Your task to perform on an android device: Go to battery settings Image 0: 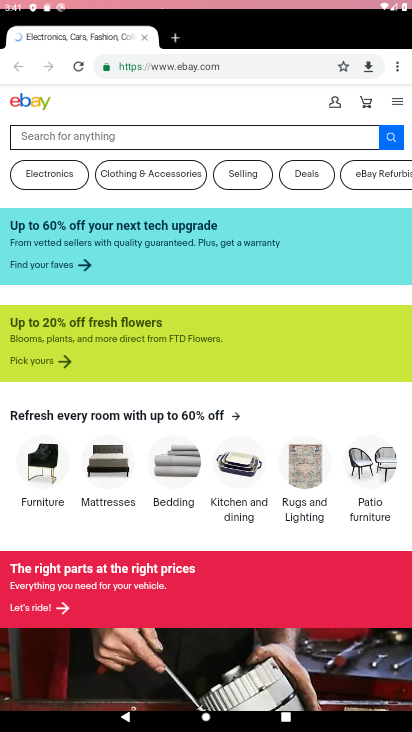
Step 0: press home button
Your task to perform on an android device: Go to battery settings Image 1: 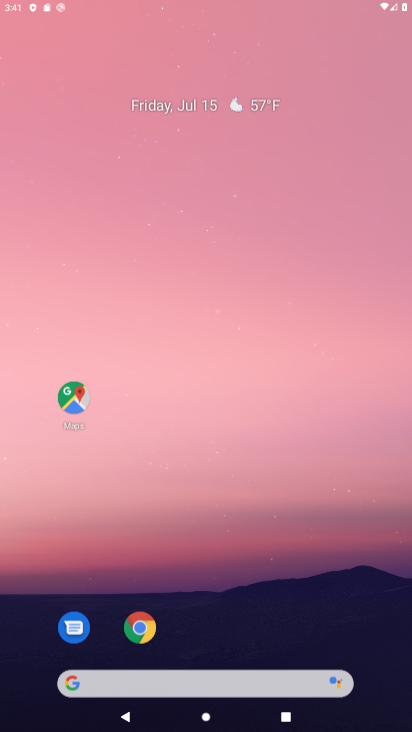
Step 1: press home button
Your task to perform on an android device: Go to battery settings Image 2: 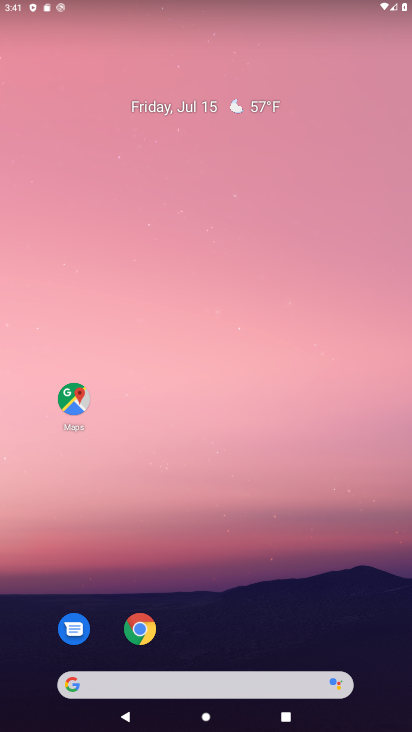
Step 2: drag from (229, 603) to (261, 57)
Your task to perform on an android device: Go to battery settings Image 3: 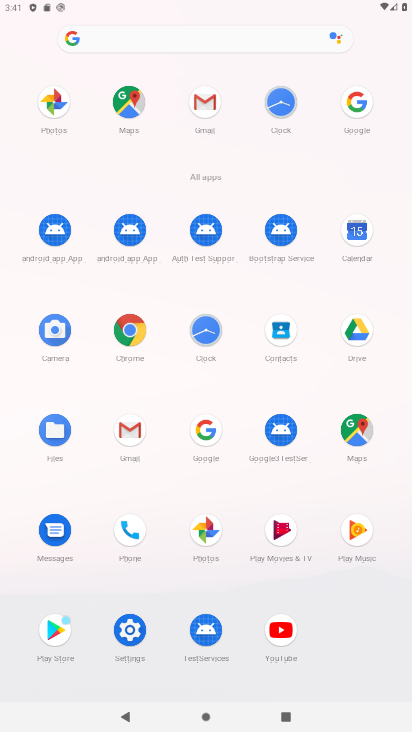
Step 3: drag from (166, 576) to (145, 420)
Your task to perform on an android device: Go to battery settings Image 4: 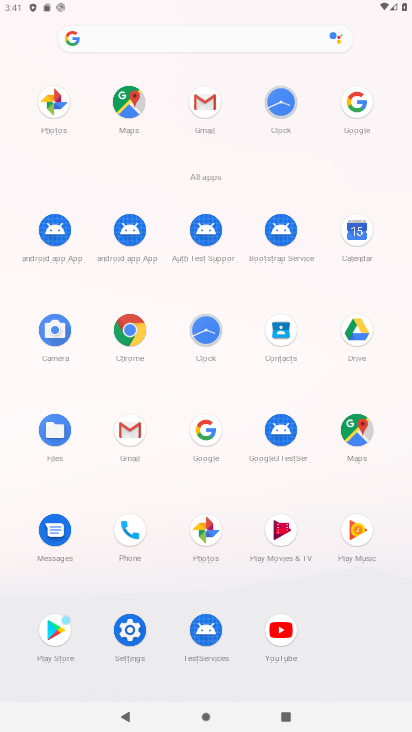
Step 4: click (133, 633)
Your task to perform on an android device: Go to battery settings Image 5: 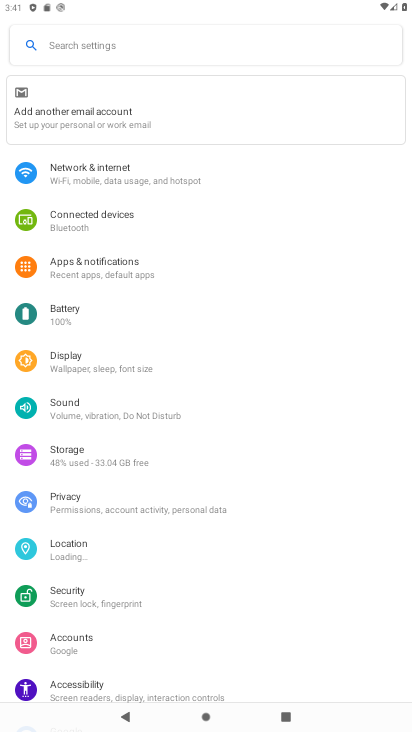
Step 5: click (65, 315)
Your task to perform on an android device: Go to battery settings Image 6: 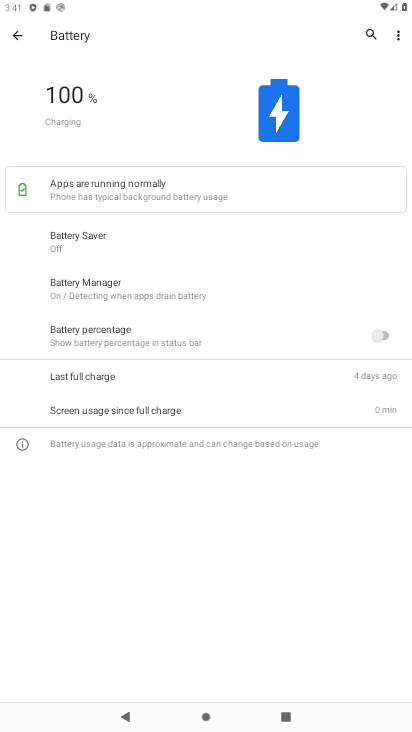
Step 6: task complete